Your task to perform on an android device: toggle data saver in the chrome app Image 0: 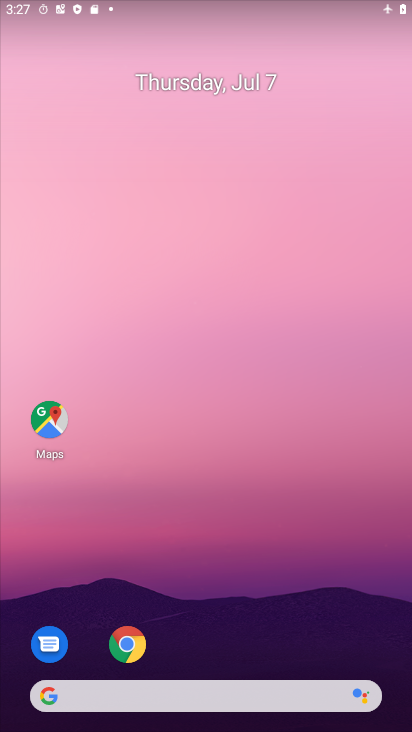
Step 0: drag from (282, 642) to (277, 90)
Your task to perform on an android device: toggle data saver in the chrome app Image 1: 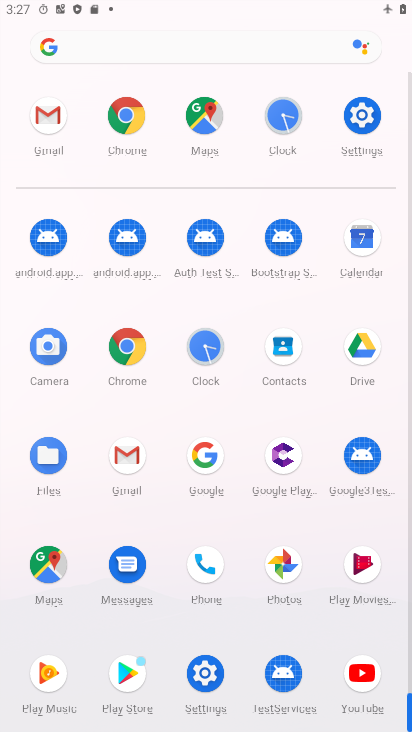
Step 1: click (125, 114)
Your task to perform on an android device: toggle data saver in the chrome app Image 2: 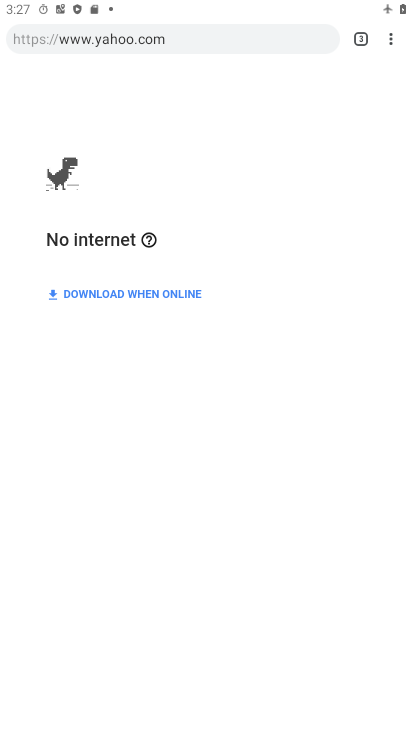
Step 2: click (385, 48)
Your task to perform on an android device: toggle data saver in the chrome app Image 3: 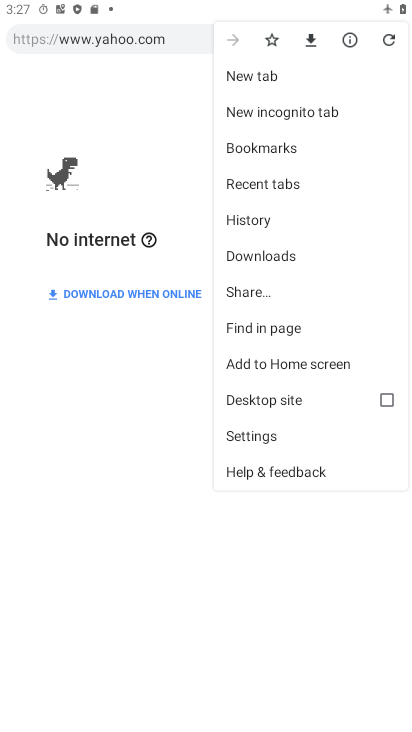
Step 3: click (250, 433)
Your task to perform on an android device: toggle data saver in the chrome app Image 4: 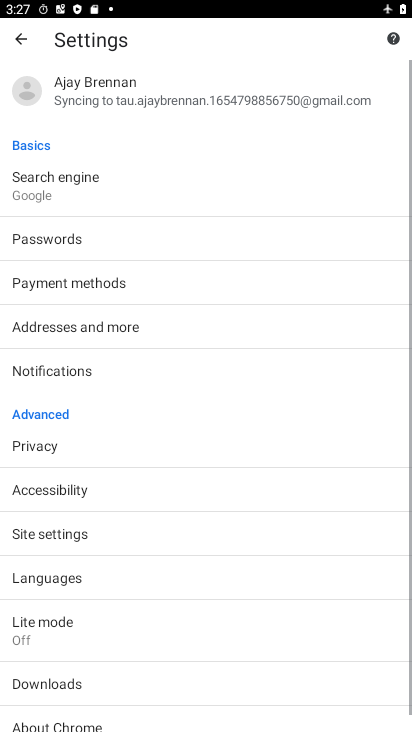
Step 4: drag from (256, 418) to (249, 132)
Your task to perform on an android device: toggle data saver in the chrome app Image 5: 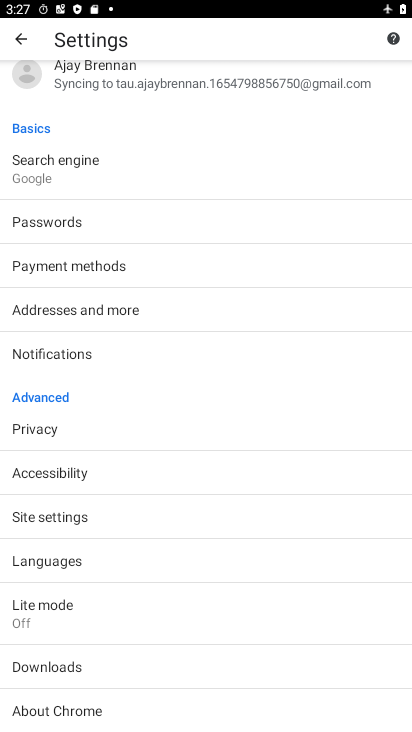
Step 5: click (43, 600)
Your task to perform on an android device: toggle data saver in the chrome app Image 6: 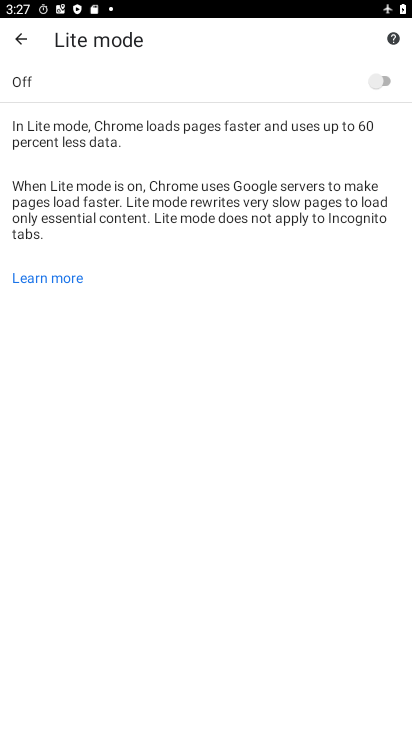
Step 6: click (372, 87)
Your task to perform on an android device: toggle data saver in the chrome app Image 7: 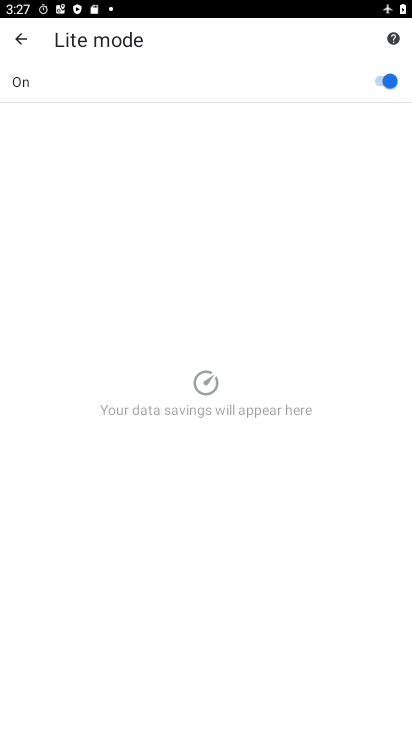
Step 7: task complete